Your task to perform on an android device: Open Google Chrome and click the shortcut for Amazon.com Image 0: 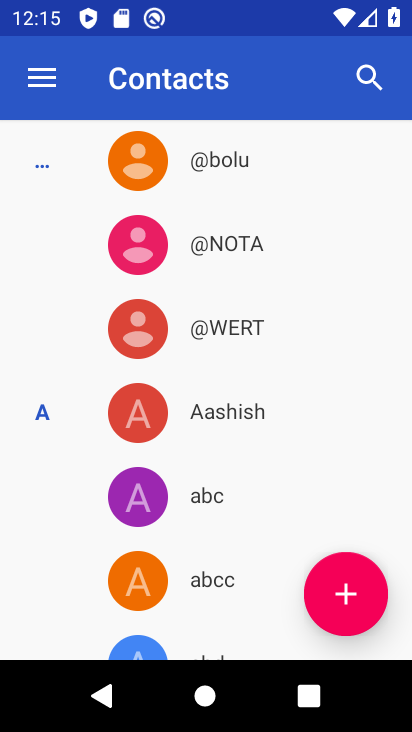
Step 0: press home button
Your task to perform on an android device: Open Google Chrome and click the shortcut for Amazon.com Image 1: 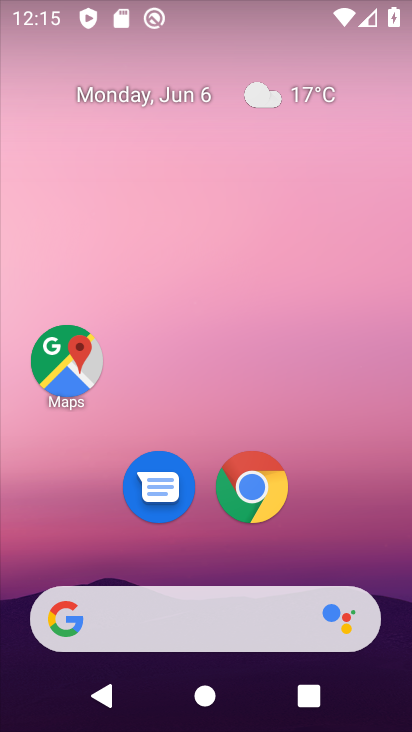
Step 1: click (251, 482)
Your task to perform on an android device: Open Google Chrome and click the shortcut for Amazon.com Image 2: 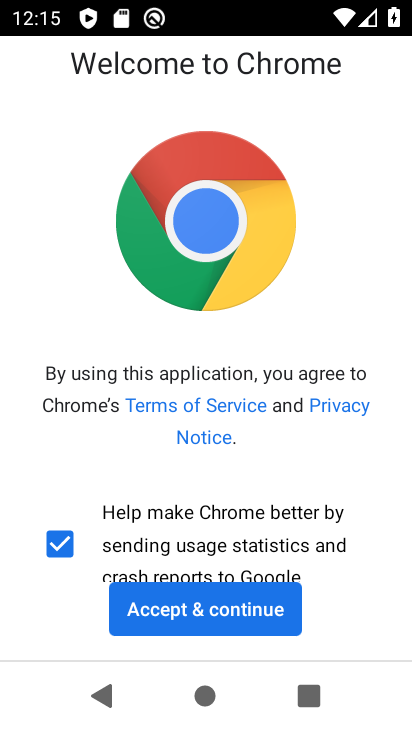
Step 2: click (200, 637)
Your task to perform on an android device: Open Google Chrome and click the shortcut for Amazon.com Image 3: 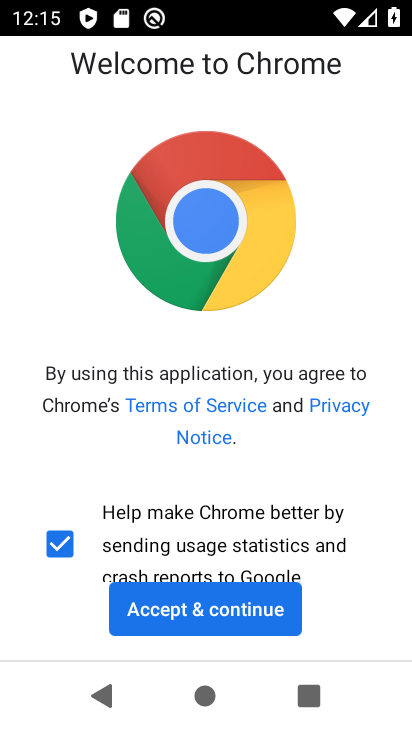
Step 3: click (205, 613)
Your task to perform on an android device: Open Google Chrome and click the shortcut for Amazon.com Image 4: 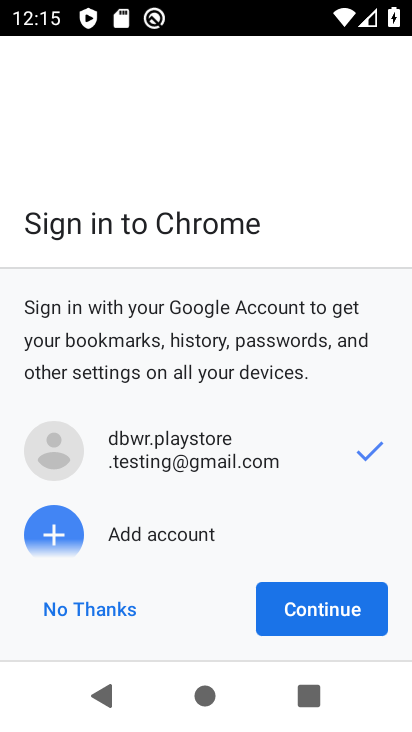
Step 4: click (317, 613)
Your task to perform on an android device: Open Google Chrome and click the shortcut for Amazon.com Image 5: 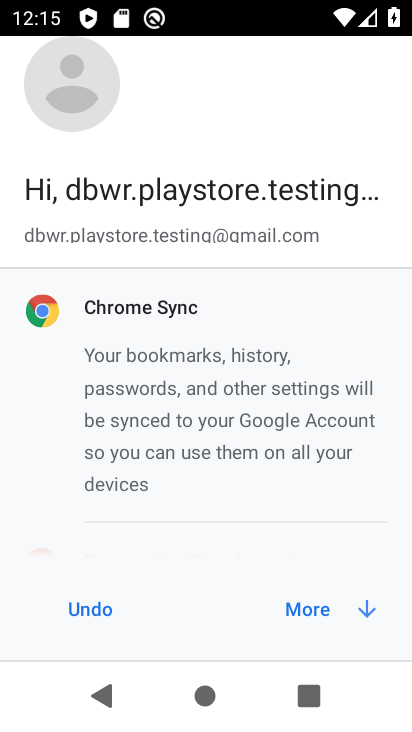
Step 5: click (313, 612)
Your task to perform on an android device: Open Google Chrome and click the shortcut for Amazon.com Image 6: 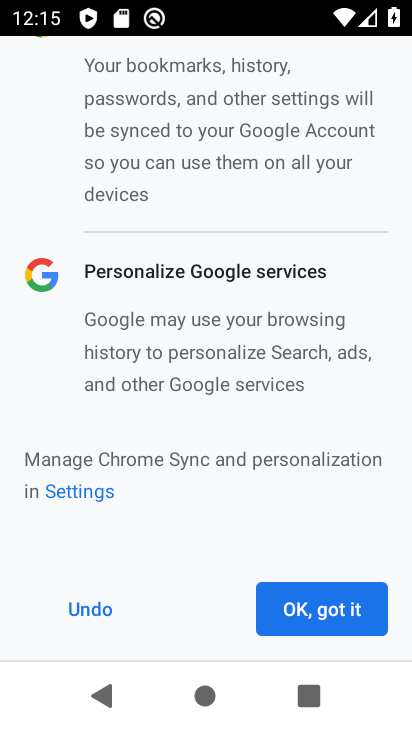
Step 6: click (330, 610)
Your task to perform on an android device: Open Google Chrome and click the shortcut for Amazon.com Image 7: 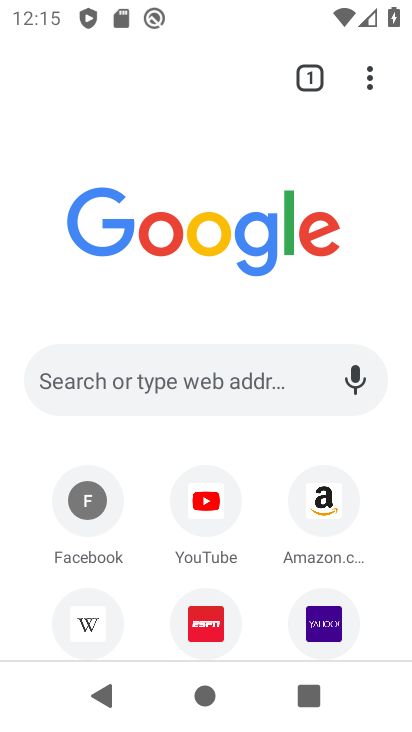
Step 7: click (325, 500)
Your task to perform on an android device: Open Google Chrome and click the shortcut for Amazon.com Image 8: 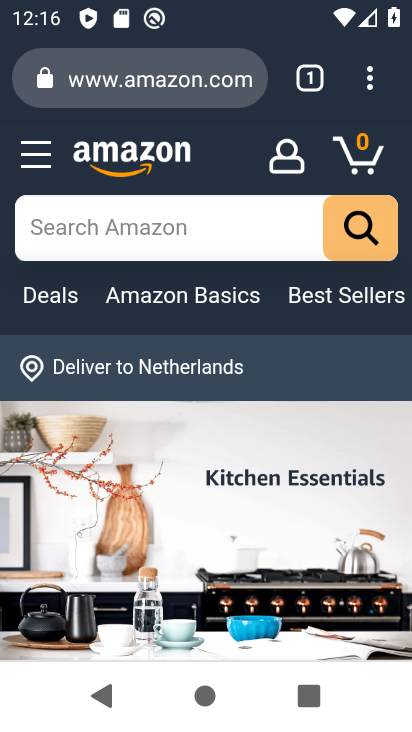
Step 8: task complete